Your task to perform on an android device: see sites visited before in the chrome app Image 0: 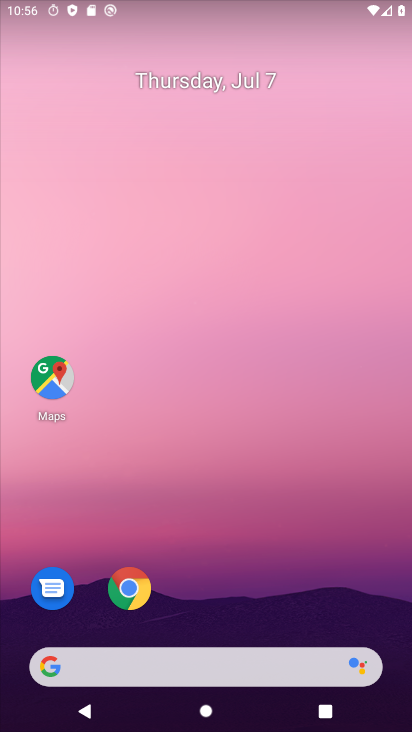
Step 0: click (329, 0)
Your task to perform on an android device: see sites visited before in the chrome app Image 1: 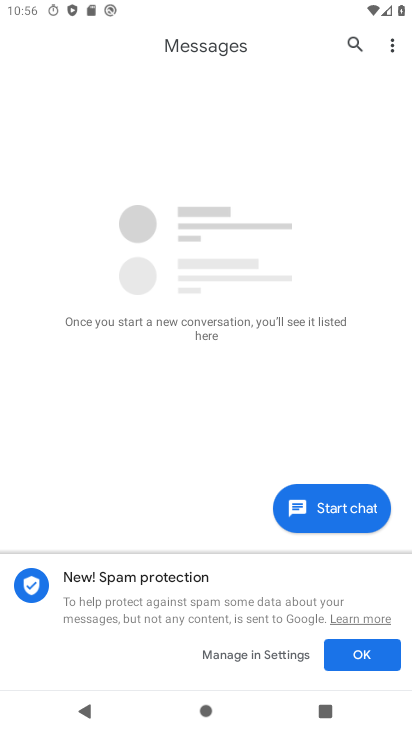
Step 1: press home button
Your task to perform on an android device: see sites visited before in the chrome app Image 2: 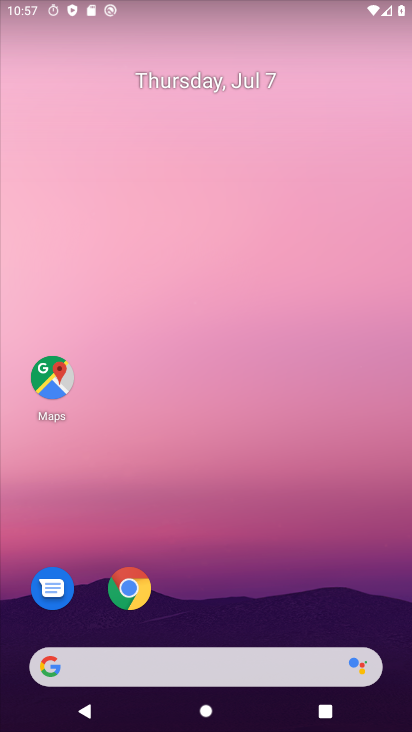
Step 2: drag from (269, 562) to (297, 0)
Your task to perform on an android device: see sites visited before in the chrome app Image 3: 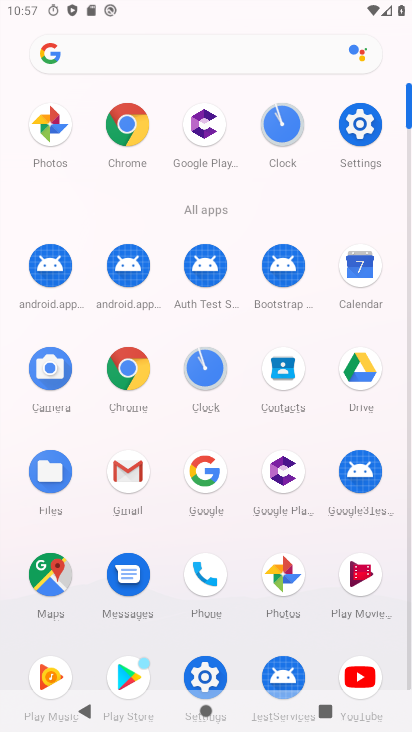
Step 3: click (123, 121)
Your task to perform on an android device: see sites visited before in the chrome app Image 4: 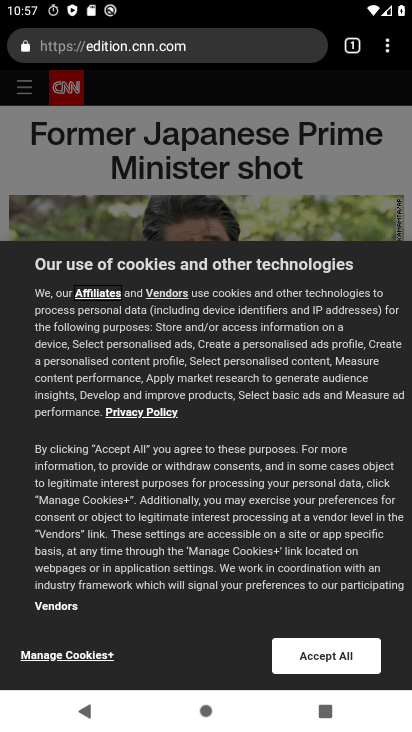
Step 4: task complete